Your task to perform on an android device: Search for Italian restaurants on Maps Image 0: 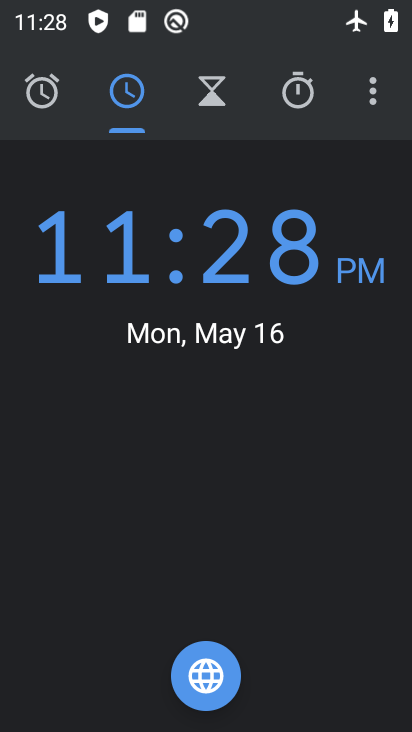
Step 0: press home button
Your task to perform on an android device: Search for Italian restaurants on Maps Image 1: 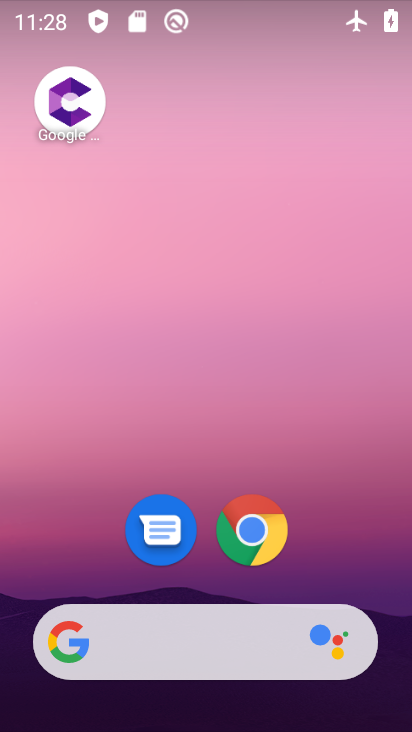
Step 1: drag from (342, 538) to (366, 57)
Your task to perform on an android device: Search for Italian restaurants on Maps Image 2: 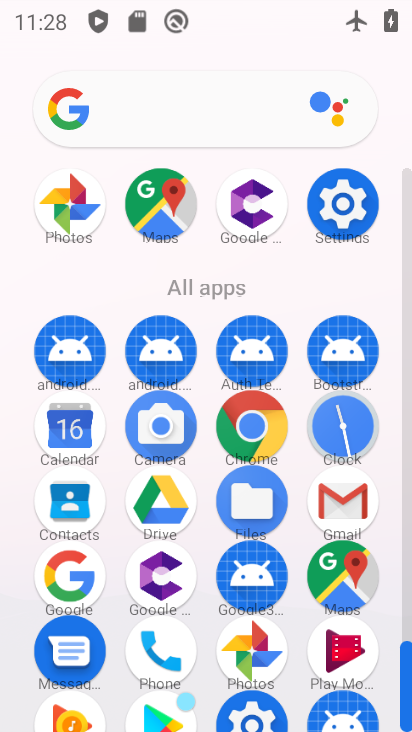
Step 2: click (369, 591)
Your task to perform on an android device: Search for Italian restaurants on Maps Image 3: 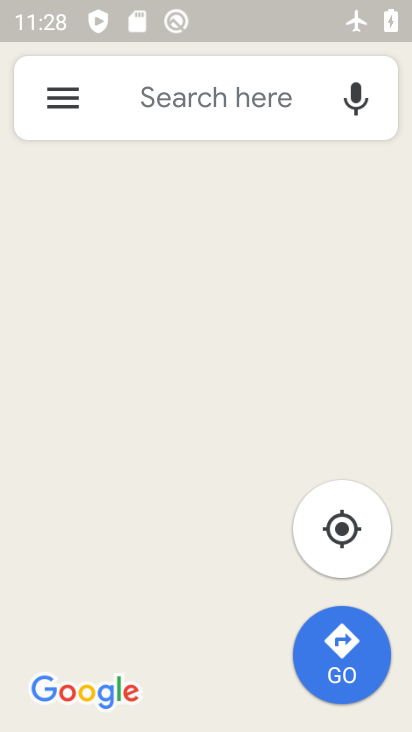
Step 3: click (172, 79)
Your task to perform on an android device: Search for Italian restaurants on Maps Image 4: 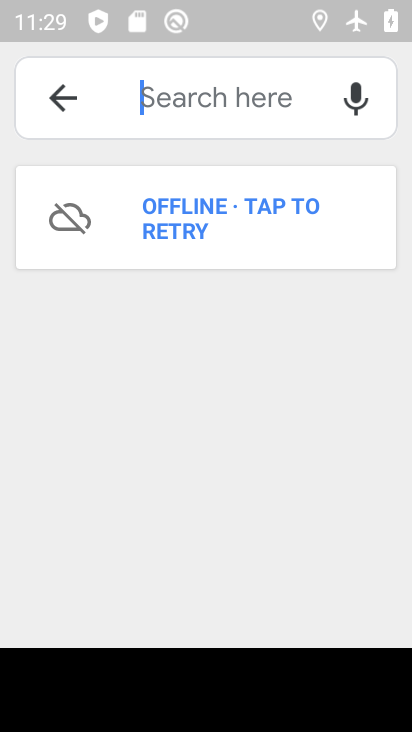
Step 4: type "italian restaurants"
Your task to perform on an android device: Search for Italian restaurants on Maps Image 5: 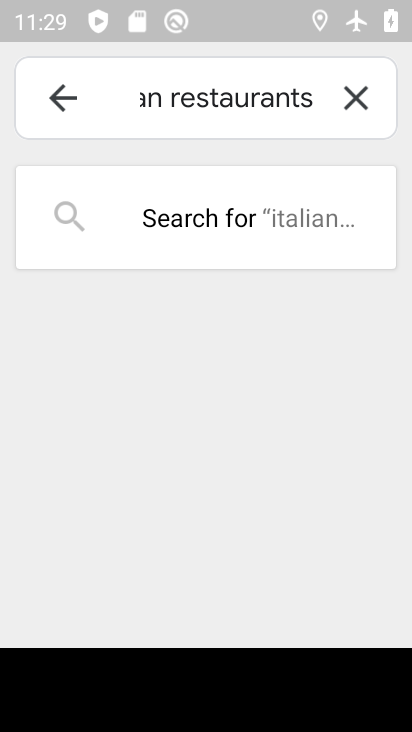
Step 5: task complete